Your task to perform on an android device: What's the weather going to be this weekend? Image 0: 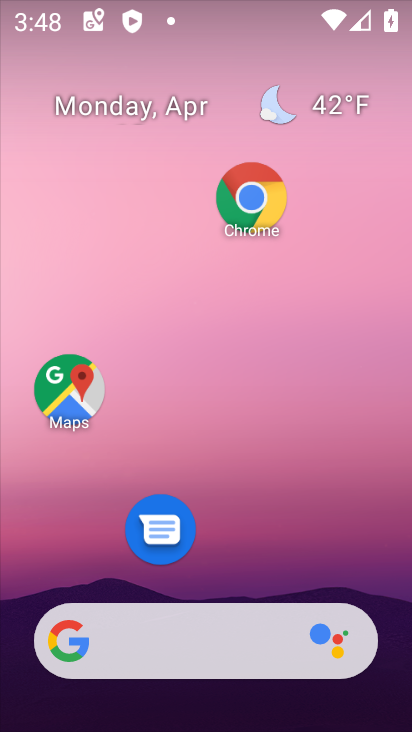
Step 0: drag from (212, 575) to (214, 127)
Your task to perform on an android device: What's the weather going to be this weekend? Image 1: 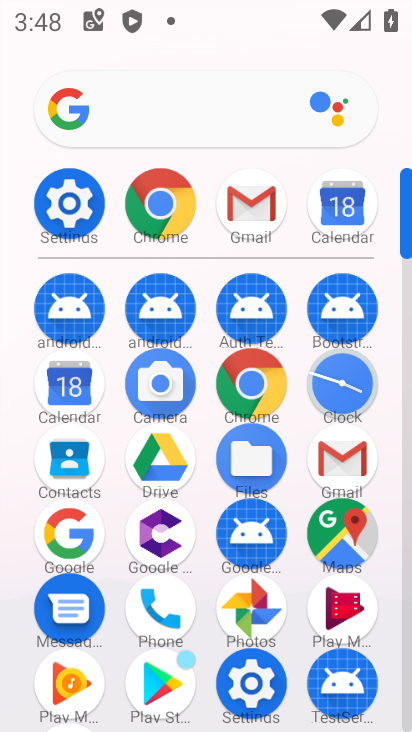
Step 1: drag from (187, 560) to (199, 343)
Your task to perform on an android device: What's the weather going to be this weekend? Image 2: 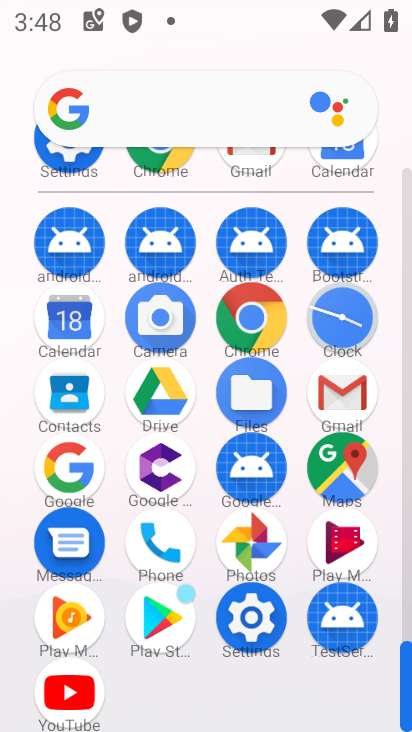
Step 2: drag from (192, 318) to (202, 378)
Your task to perform on an android device: What's the weather going to be this weekend? Image 3: 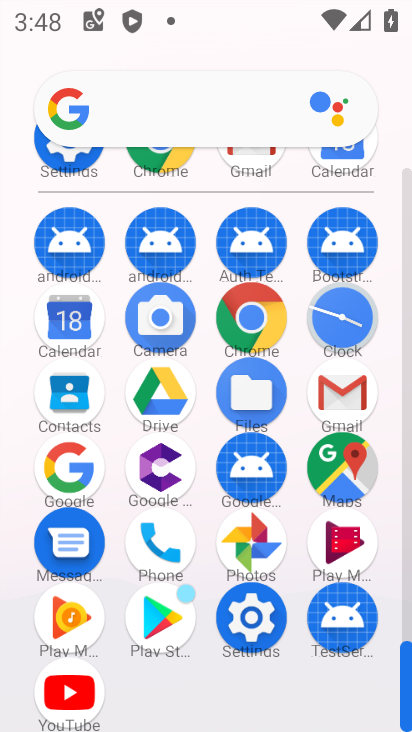
Step 3: click (86, 455)
Your task to perform on an android device: What's the weather going to be this weekend? Image 4: 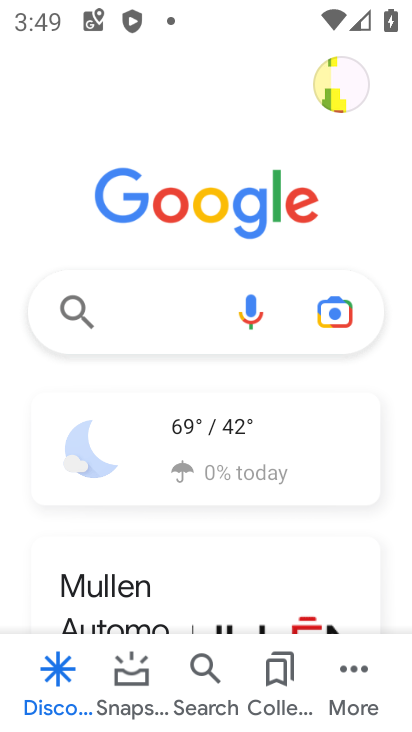
Step 4: click (227, 456)
Your task to perform on an android device: What's the weather going to be this weekend? Image 5: 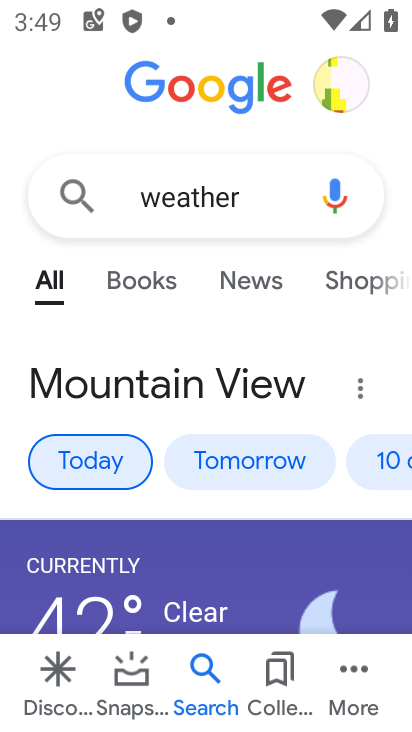
Step 5: click (373, 450)
Your task to perform on an android device: What's the weather going to be this weekend? Image 6: 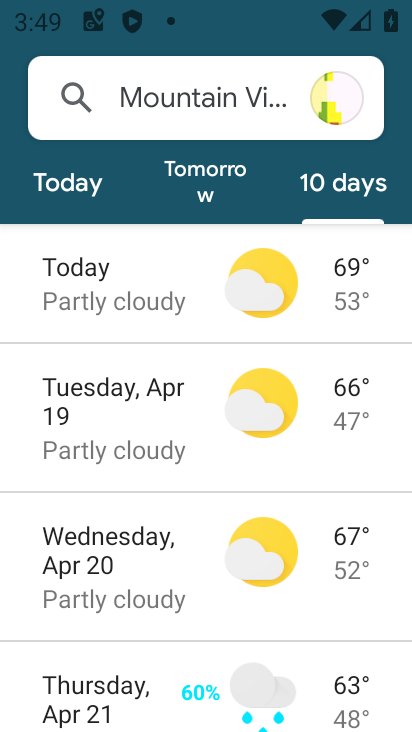
Step 6: drag from (173, 586) to (183, 281)
Your task to perform on an android device: What's the weather going to be this weekend? Image 7: 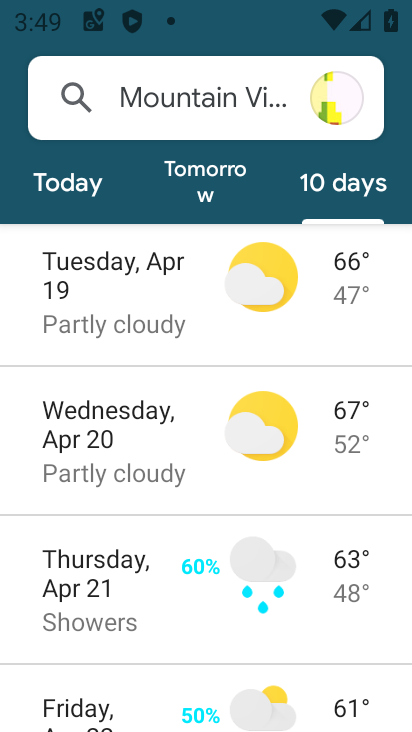
Step 7: drag from (182, 517) to (200, 306)
Your task to perform on an android device: What's the weather going to be this weekend? Image 8: 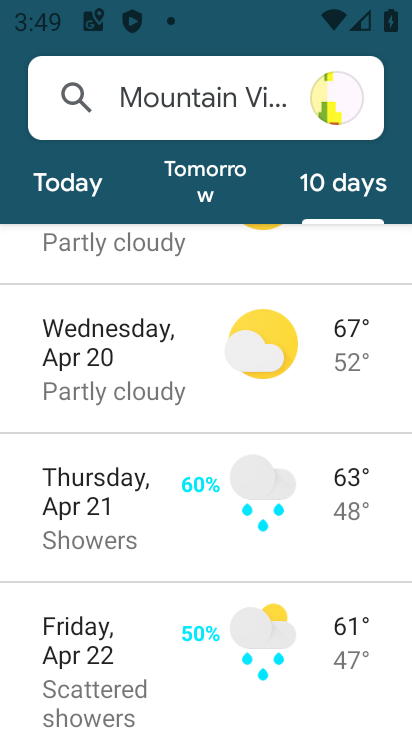
Step 8: drag from (171, 582) to (174, 374)
Your task to perform on an android device: What's the weather going to be this weekend? Image 9: 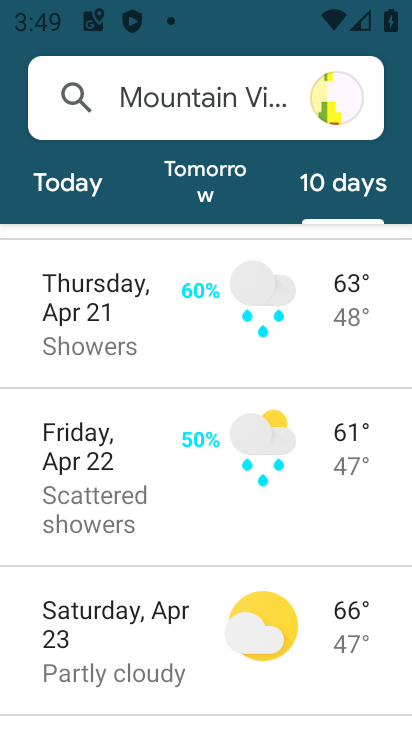
Step 9: drag from (177, 543) to (176, 382)
Your task to perform on an android device: What's the weather going to be this weekend? Image 10: 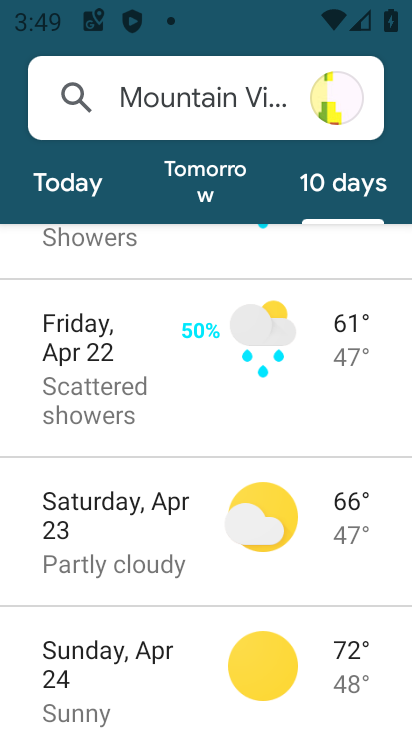
Step 10: click (154, 544)
Your task to perform on an android device: What's the weather going to be this weekend? Image 11: 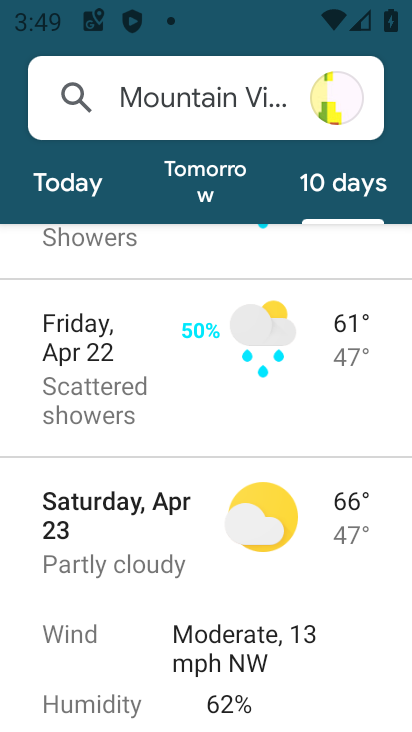
Step 11: task complete